Your task to perform on an android device: Go to privacy settings Image 0: 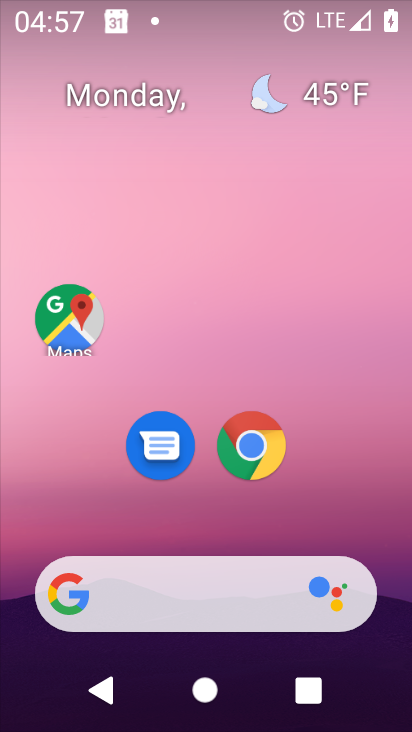
Step 0: drag from (293, 529) to (267, 162)
Your task to perform on an android device: Go to privacy settings Image 1: 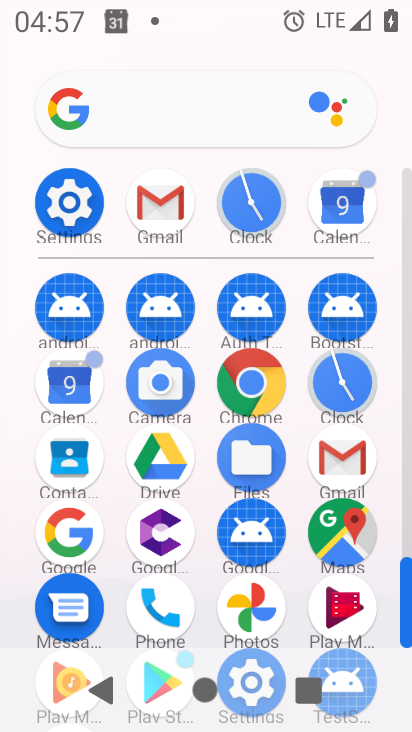
Step 1: click (273, 374)
Your task to perform on an android device: Go to privacy settings Image 2: 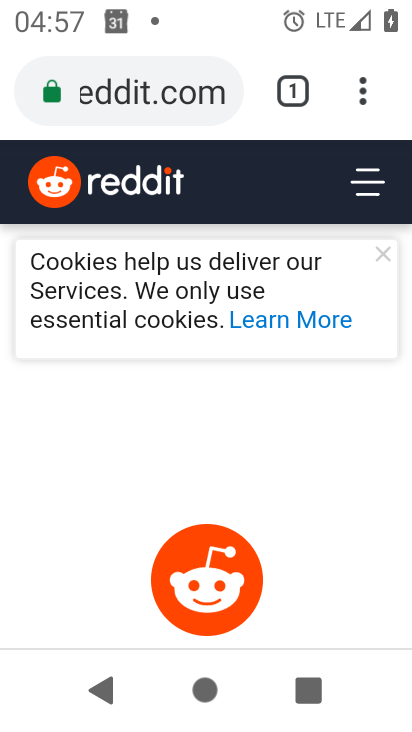
Step 2: click (361, 87)
Your task to perform on an android device: Go to privacy settings Image 3: 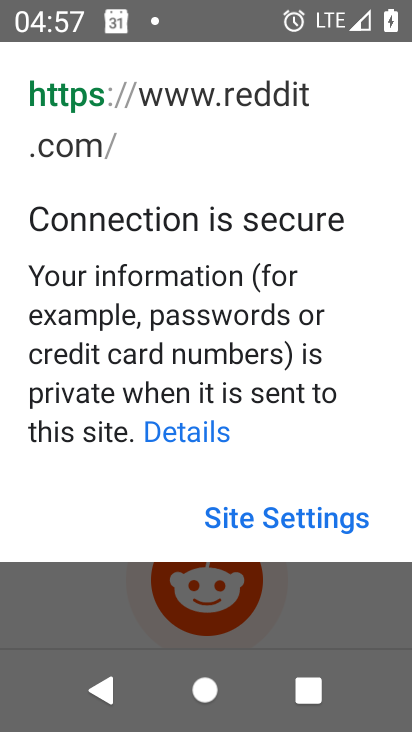
Step 3: click (69, 637)
Your task to perform on an android device: Go to privacy settings Image 4: 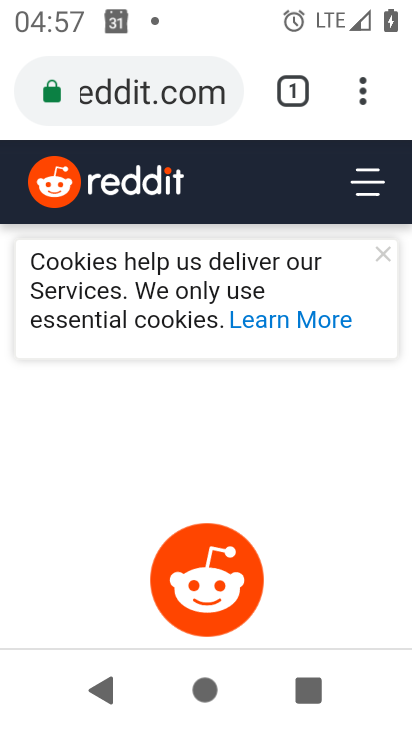
Step 4: click (349, 98)
Your task to perform on an android device: Go to privacy settings Image 5: 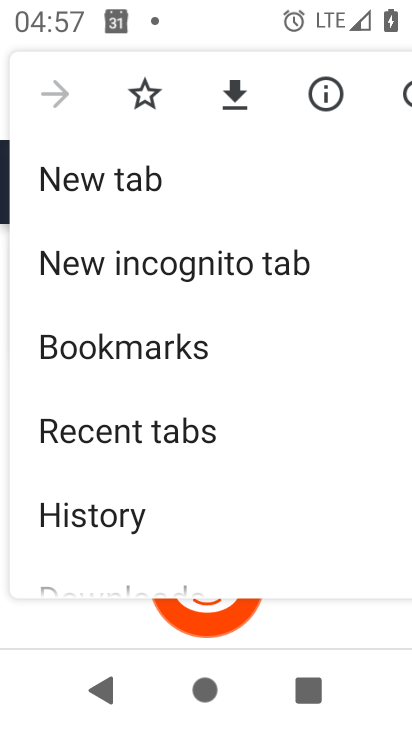
Step 5: drag from (212, 384) to (280, 25)
Your task to perform on an android device: Go to privacy settings Image 6: 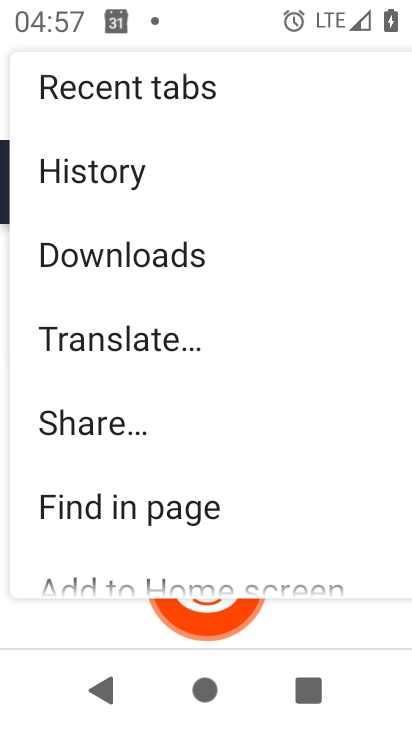
Step 6: drag from (191, 448) to (218, 21)
Your task to perform on an android device: Go to privacy settings Image 7: 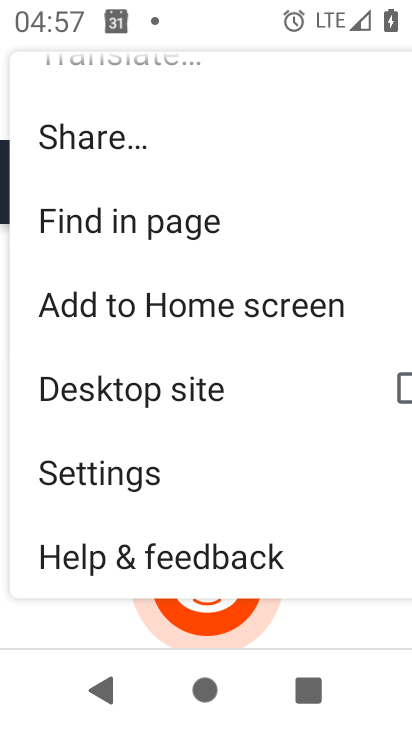
Step 7: click (156, 459)
Your task to perform on an android device: Go to privacy settings Image 8: 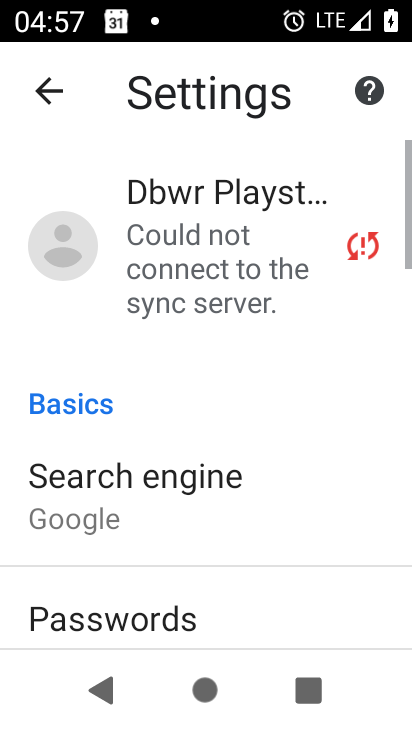
Step 8: drag from (149, 583) to (268, 142)
Your task to perform on an android device: Go to privacy settings Image 9: 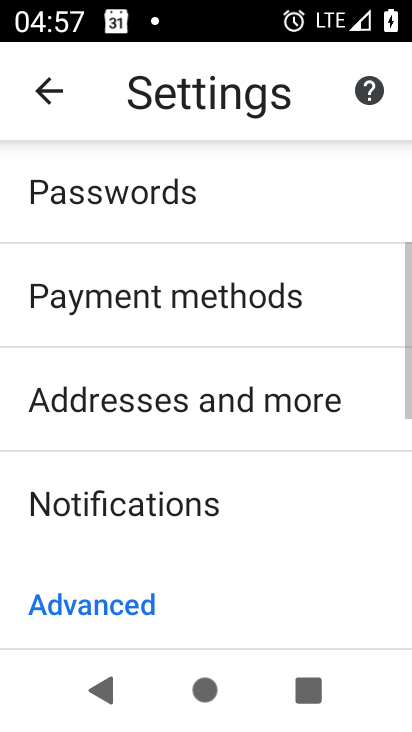
Step 9: drag from (178, 588) to (212, 176)
Your task to perform on an android device: Go to privacy settings Image 10: 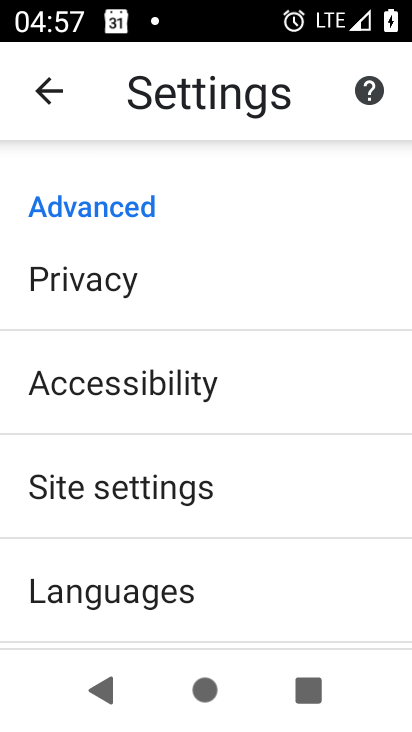
Step 10: click (162, 290)
Your task to perform on an android device: Go to privacy settings Image 11: 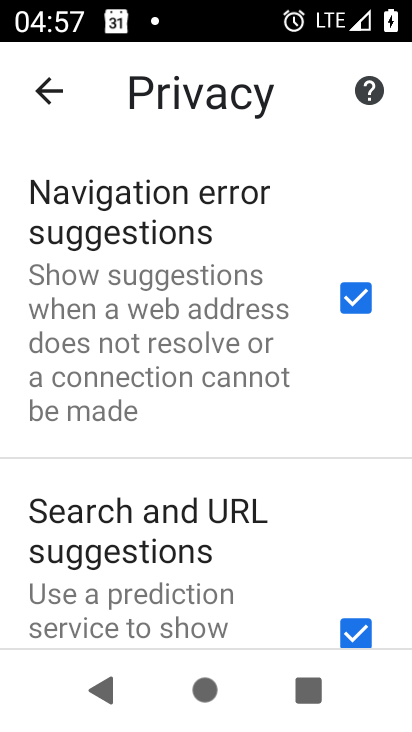
Step 11: task complete